Your task to perform on an android device: Go to Yahoo.com Image 0: 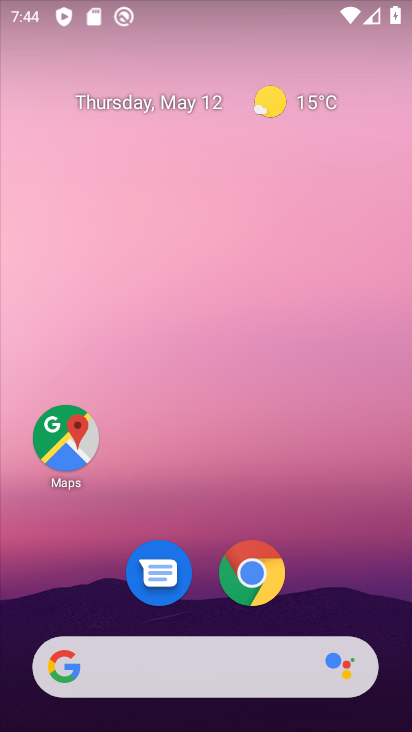
Step 0: click (255, 574)
Your task to perform on an android device: Go to Yahoo.com Image 1: 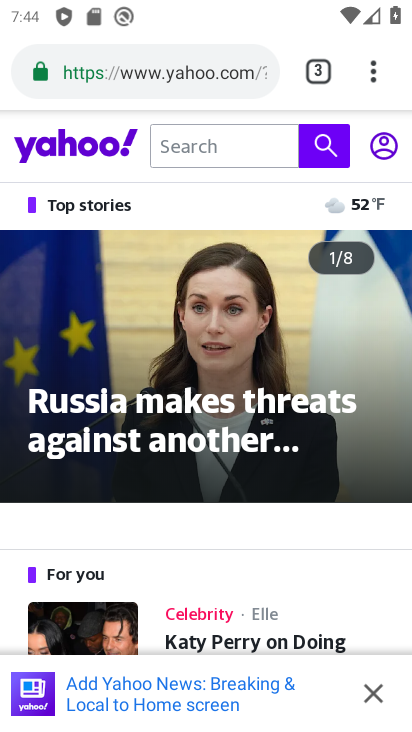
Step 1: task complete